Your task to perform on an android device: turn pop-ups on in chrome Image 0: 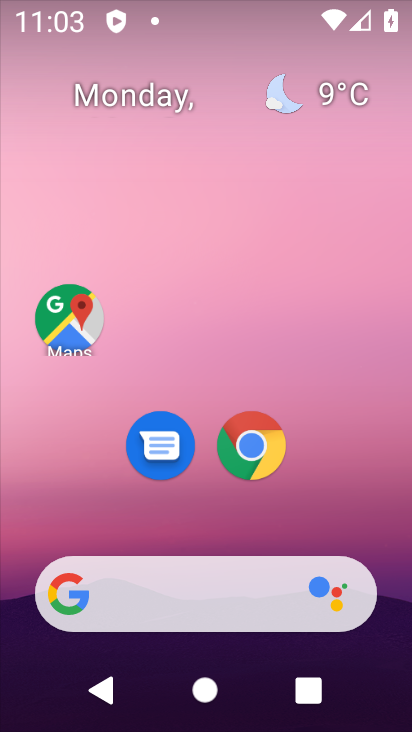
Step 0: drag from (248, 535) to (287, 3)
Your task to perform on an android device: turn pop-ups on in chrome Image 1: 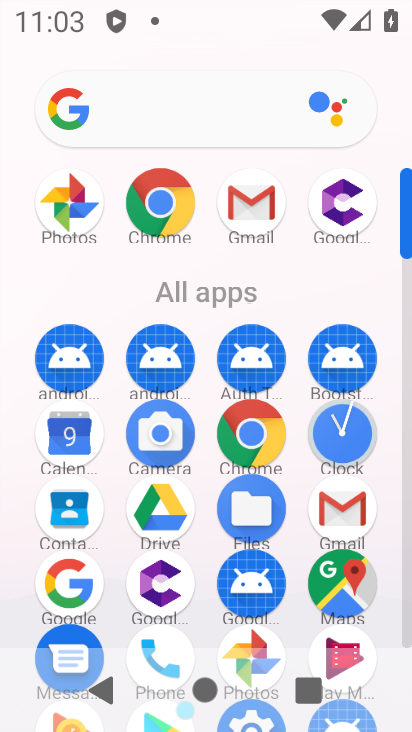
Step 1: click (236, 440)
Your task to perform on an android device: turn pop-ups on in chrome Image 2: 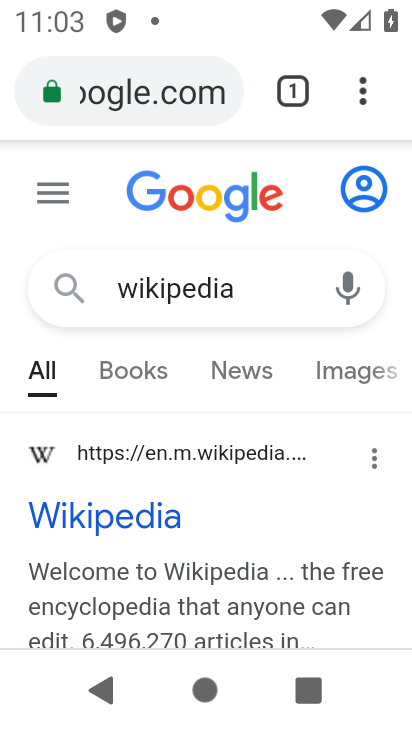
Step 2: drag from (363, 80) to (222, 527)
Your task to perform on an android device: turn pop-ups on in chrome Image 3: 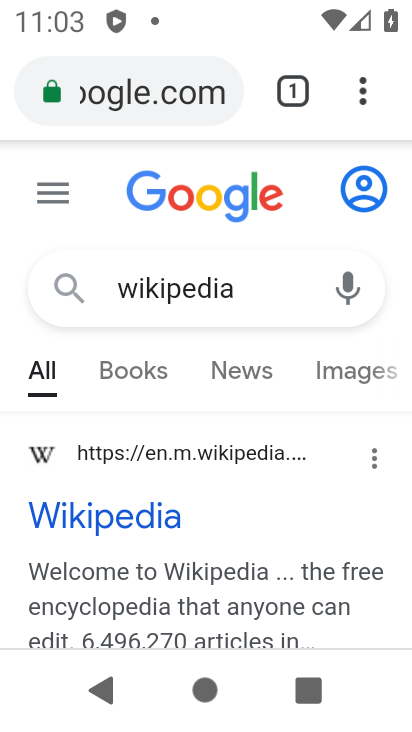
Step 3: click (229, 490)
Your task to perform on an android device: turn pop-ups on in chrome Image 4: 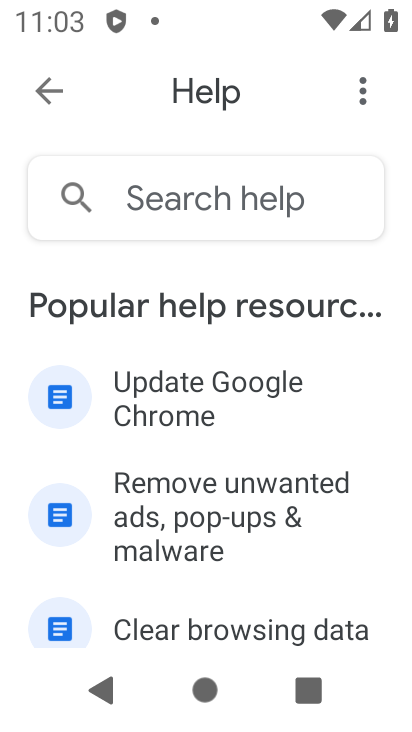
Step 4: press back button
Your task to perform on an android device: turn pop-ups on in chrome Image 5: 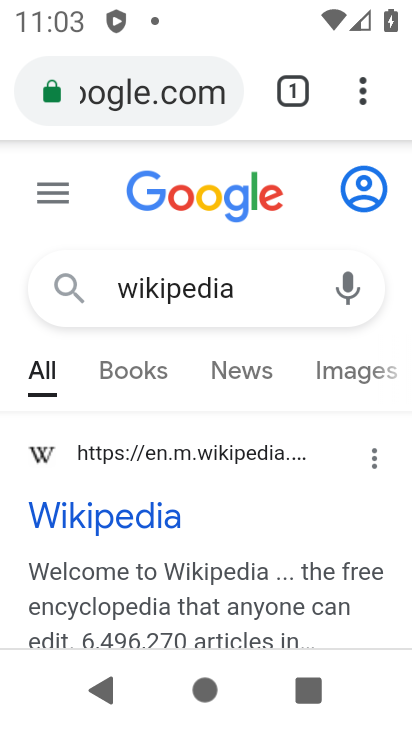
Step 5: drag from (348, 78) to (318, 231)
Your task to perform on an android device: turn pop-ups on in chrome Image 6: 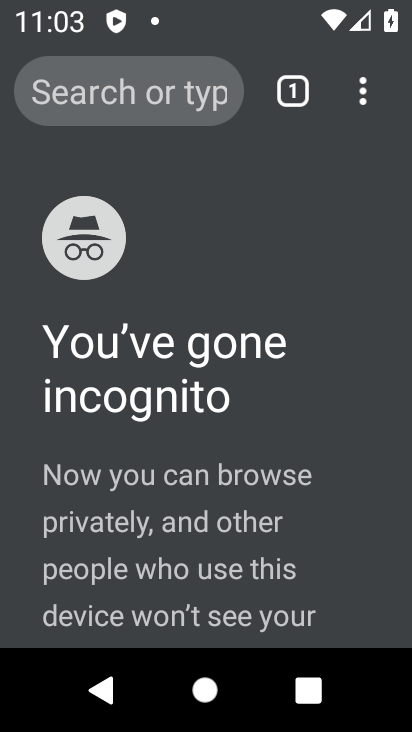
Step 6: drag from (368, 98) to (245, 472)
Your task to perform on an android device: turn pop-ups on in chrome Image 7: 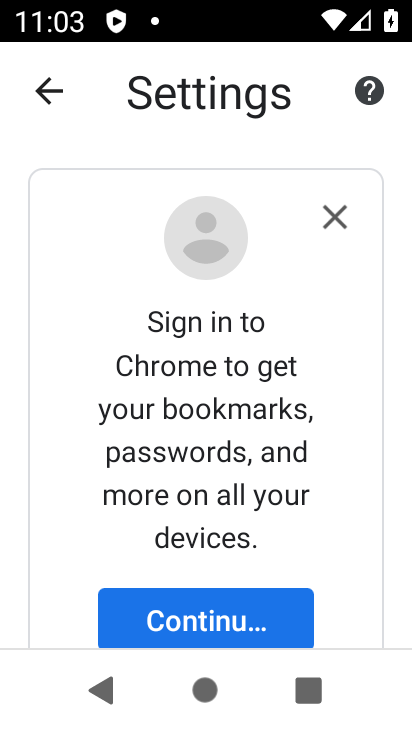
Step 7: drag from (323, 563) to (344, 52)
Your task to perform on an android device: turn pop-ups on in chrome Image 8: 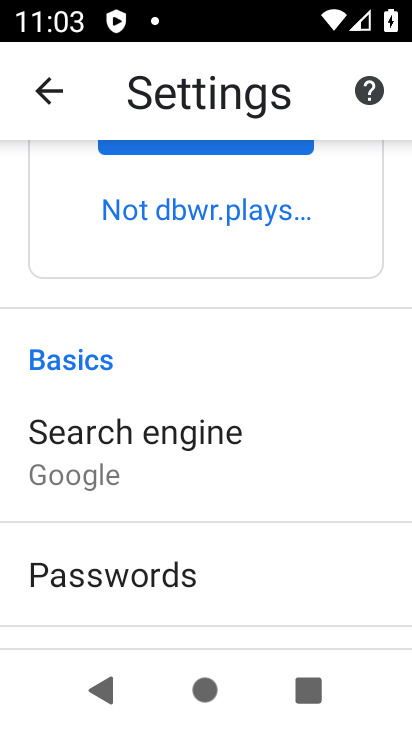
Step 8: drag from (304, 548) to (337, 221)
Your task to perform on an android device: turn pop-ups on in chrome Image 9: 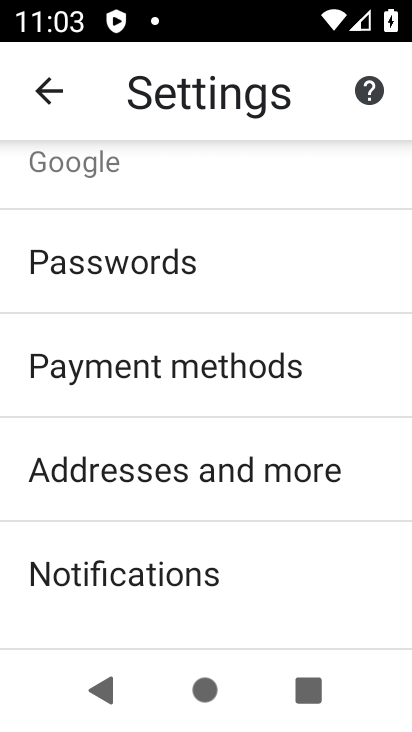
Step 9: drag from (316, 627) to (309, 324)
Your task to perform on an android device: turn pop-ups on in chrome Image 10: 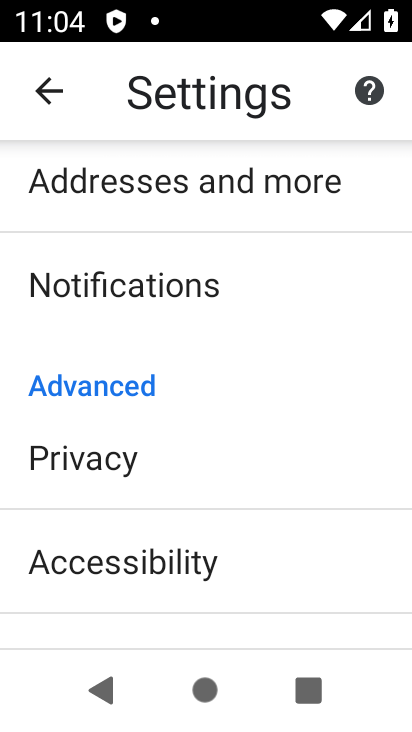
Step 10: drag from (172, 625) to (199, 490)
Your task to perform on an android device: turn pop-ups on in chrome Image 11: 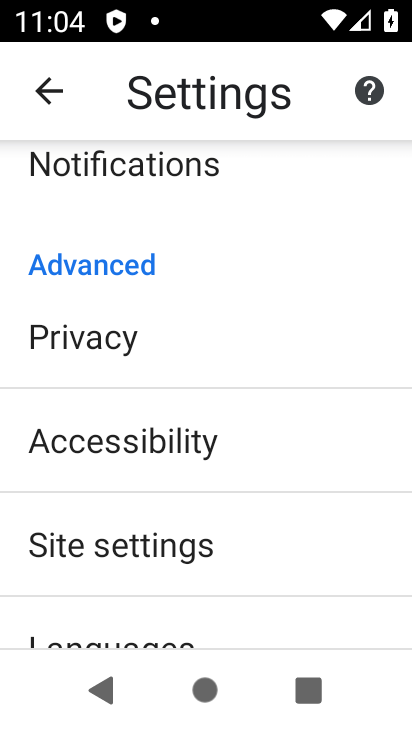
Step 11: click (176, 545)
Your task to perform on an android device: turn pop-ups on in chrome Image 12: 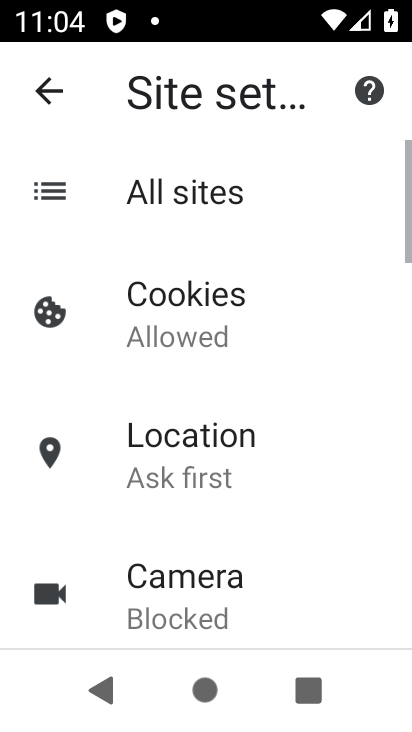
Step 12: drag from (172, 607) to (222, 231)
Your task to perform on an android device: turn pop-ups on in chrome Image 13: 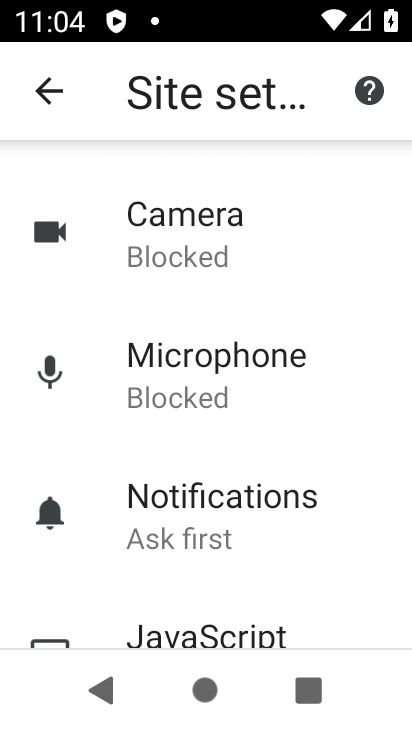
Step 13: drag from (201, 632) to (239, 336)
Your task to perform on an android device: turn pop-ups on in chrome Image 14: 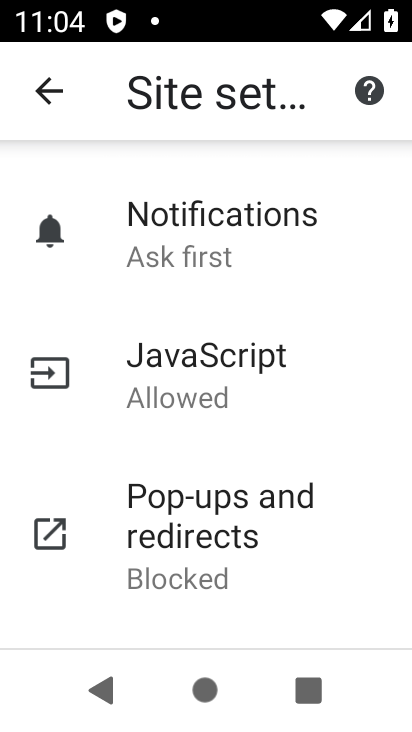
Step 14: click (194, 594)
Your task to perform on an android device: turn pop-ups on in chrome Image 15: 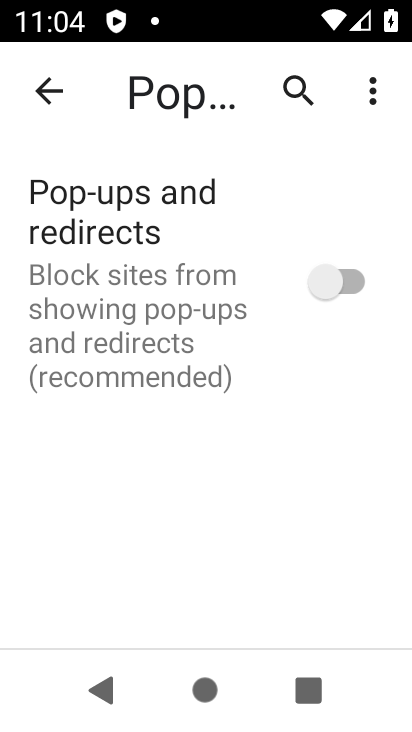
Step 15: task complete